Your task to perform on an android device: choose inbox layout in the gmail app Image 0: 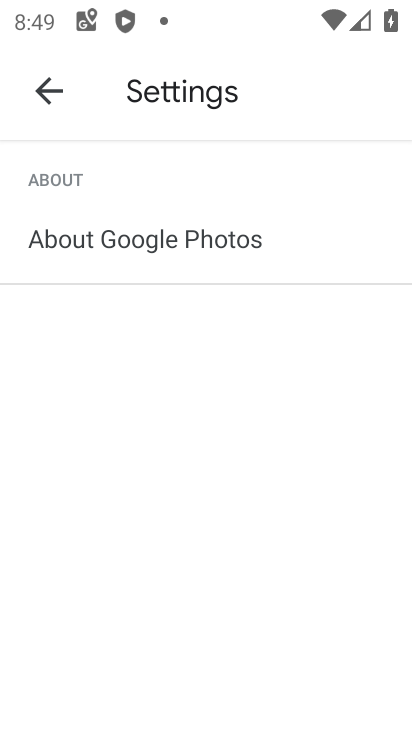
Step 0: press home button
Your task to perform on an android device: choose inbox layout in the gmail app Image 1: 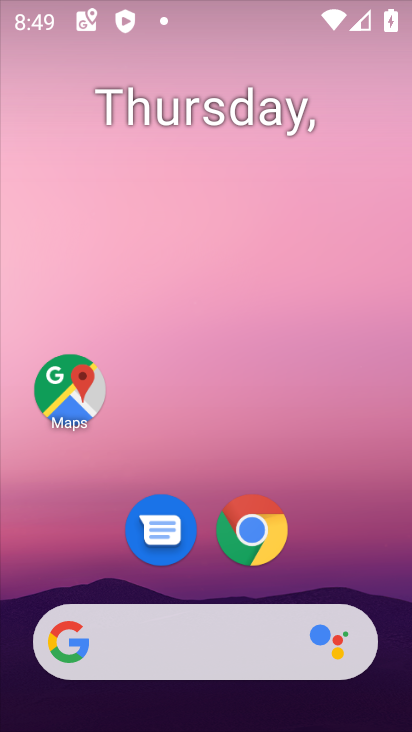
Step 1: drag from (218, 628) to (246, 259)
Your task to perform on an android device: choose inbox layout in the gmail app Image 2: 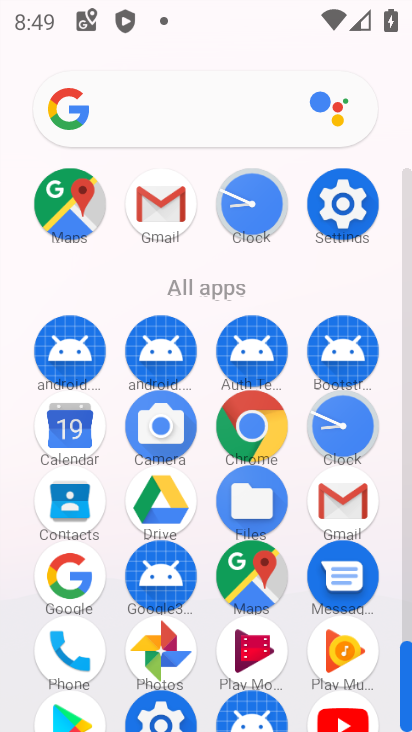
Step 2: click (347, 497)
Your task to perform on an android device: choose inbox layout in the gmail app Image 3: 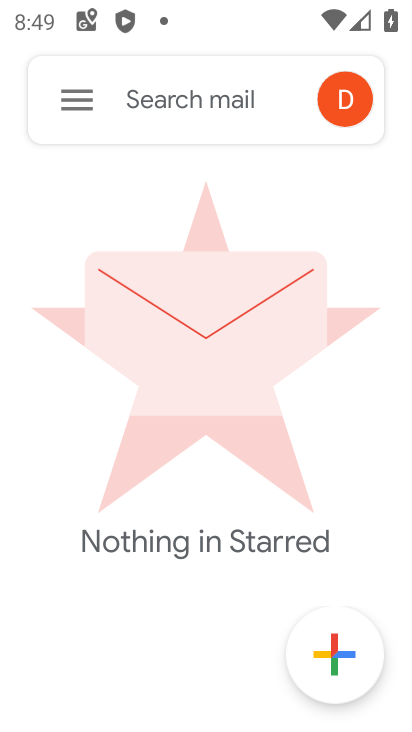
Step 3: click (61, 99)
Your task to perform on an android device: choose inbox layout in the gmail app Image 4: 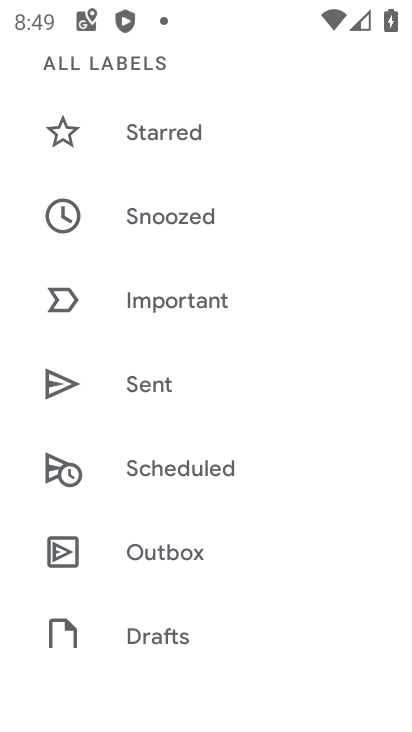
Step 4: drag from (252, 601) to (258, 226)
Your task to perform on an android device: choose inbox layout in the gmail app Image 5: 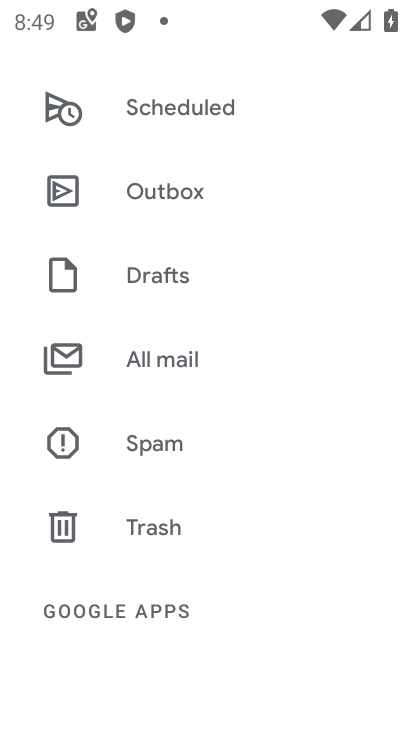
Step 5: drag from (172, 602) to (196, 365)
Your task to perform on an android device: choose inbox layout in the gmail app Image 6: 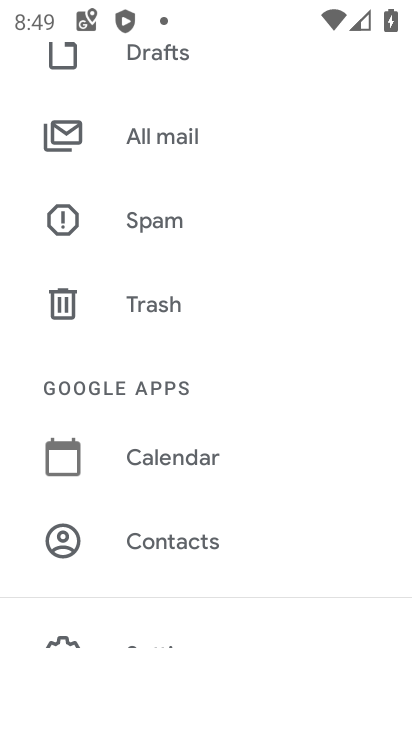
Step 6: drag from (166, 586) to (216, 350)
Your task to perform on an android device: choose inbox layout in the gmail app Image 7: 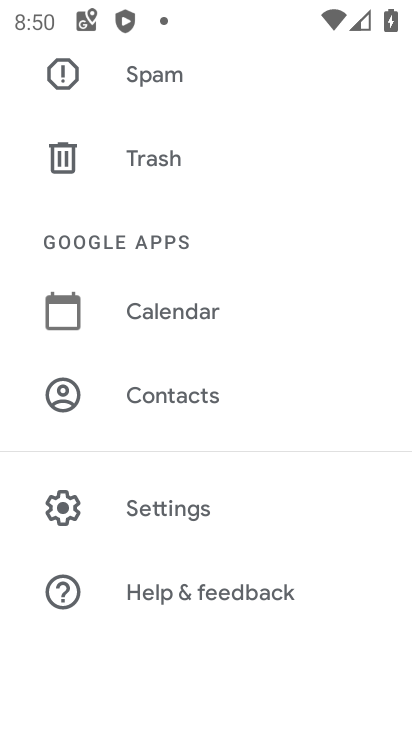
Step 7: click (226, 503)
Your task to perform on an android device: choose inbox layout in the gmail app Image 8: 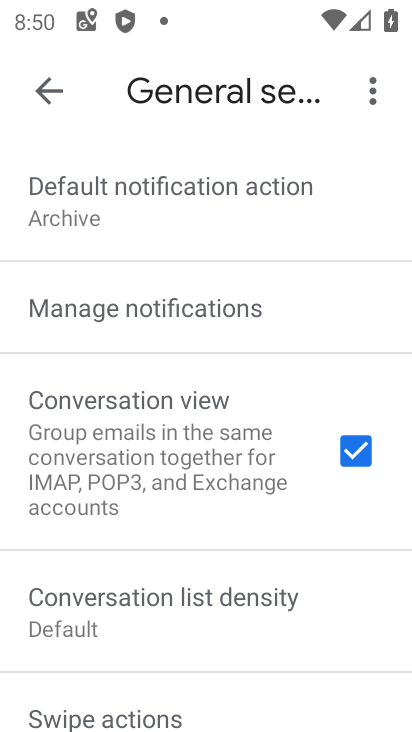
Step 8: task complete